Your task to perform on an android device: turn notification dots on Image 0: 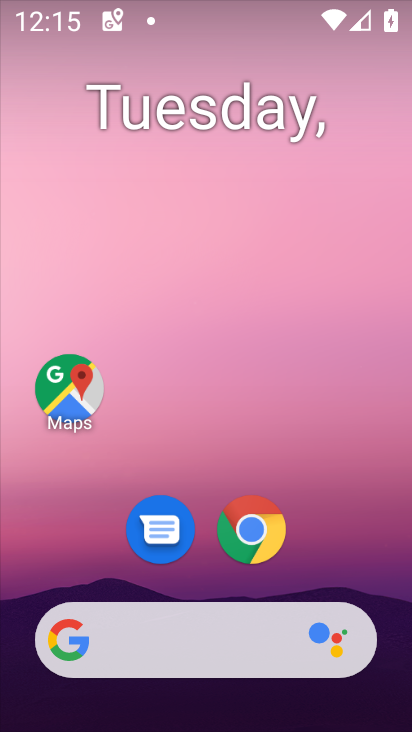
Step 0: drag from (211, 680) to (318, 85)
Your task to perform on an android device: turn notification dots on Image 1: 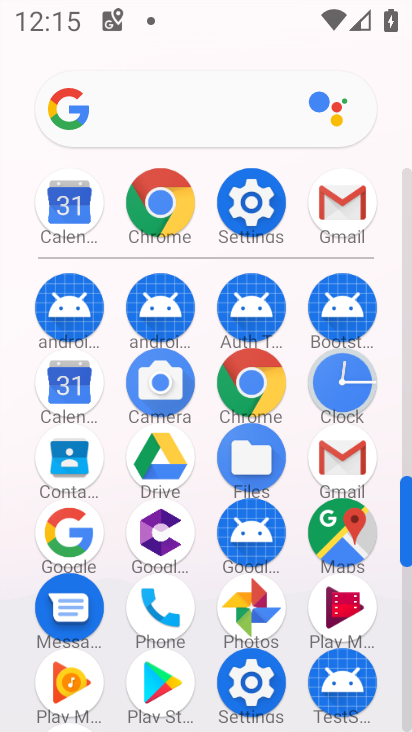
Step 1: click (239, 221)
Your task to perform on an android device: turn notification dots on Image 2: 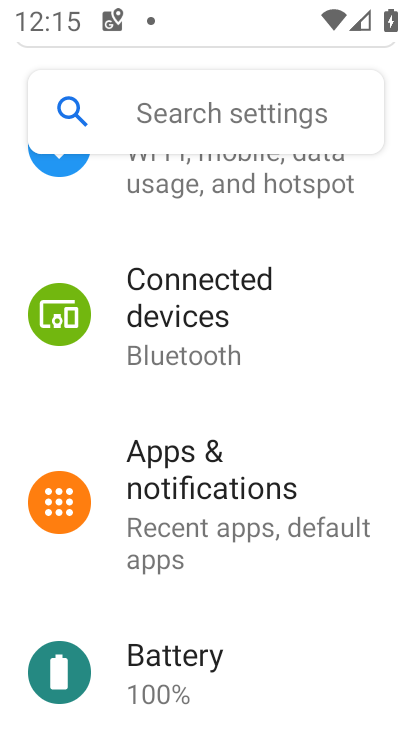
Step 2: click (173, 113)
Your task to perform on an android device: turn notification dots on Image 3: 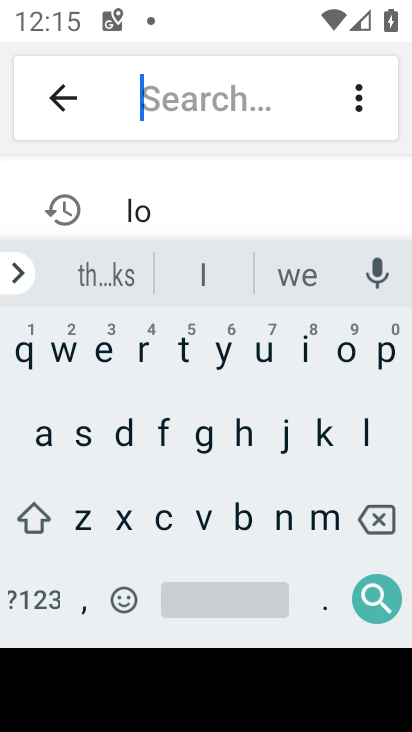
Step 3: click (120, 433)
Your task to perform on an android device: turn notification dots on Image 4: 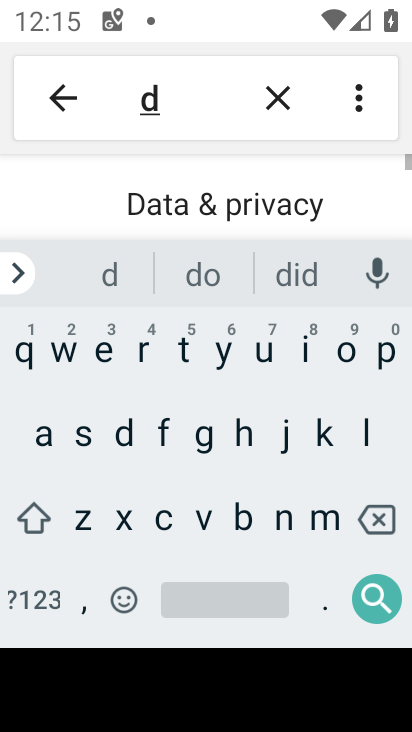
Step 4: click (343, 357)
Your task to perform on an android device: turn notification dots on Image 5: 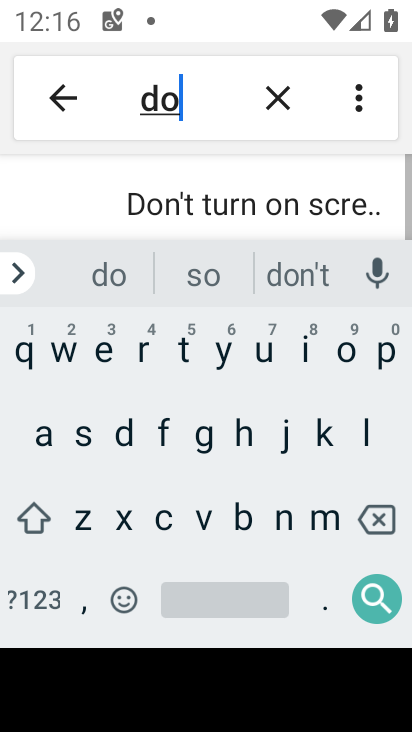
Step 5: click (180, 359)
Your task to perform on an android device: turn notification dots on Image 6: 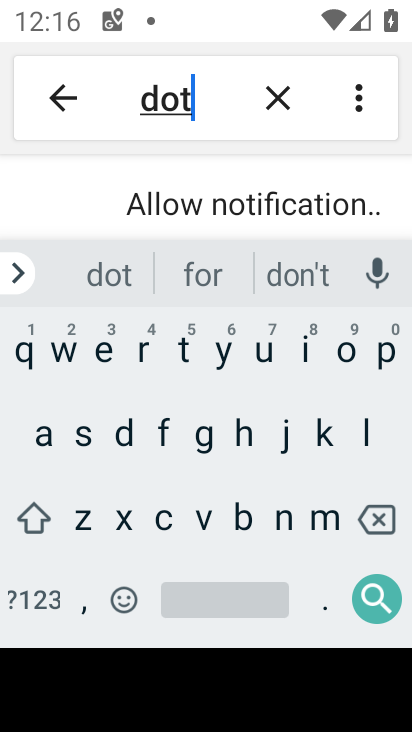
Step 6: click (273, 206)
Your task to perform on an android device: turn notification dots on Image 7: 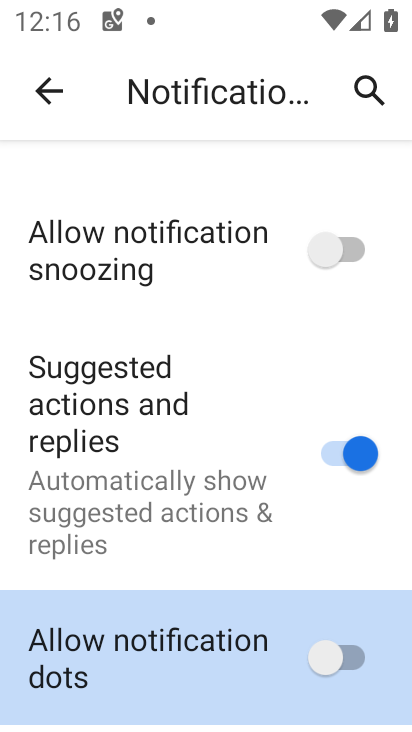
Step 7: click (190, 670)
Your task to perform on an android device: turn notification dots on Image 8: 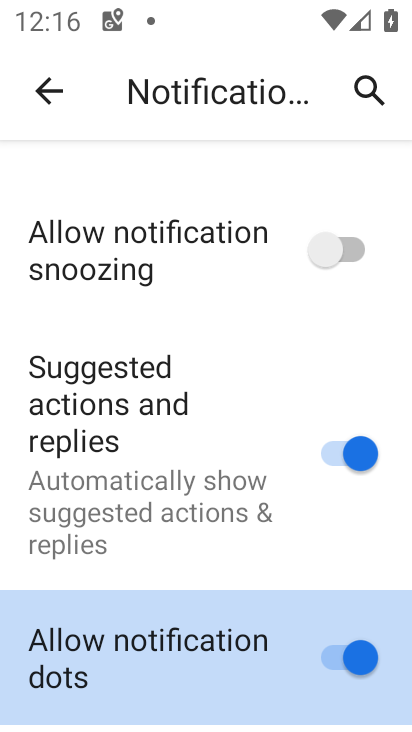
Step 8: task complete